Your task to perform on an android device: change alarm snooze length Image 0: 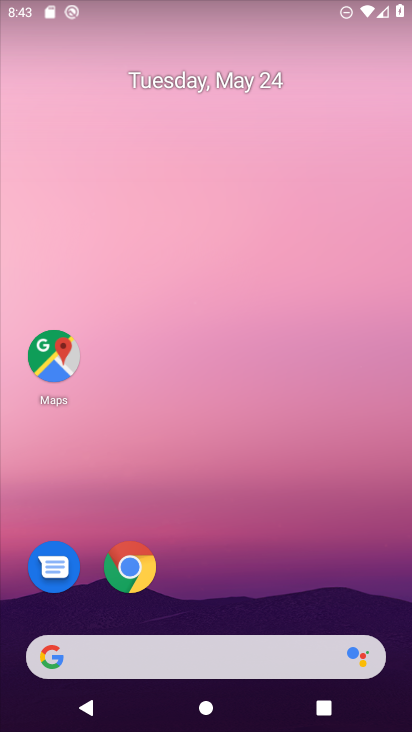
Step 0: drag from (153, 672) to (321, 154)
Your task to perform on an android device: change alarm snooze length Image 1: 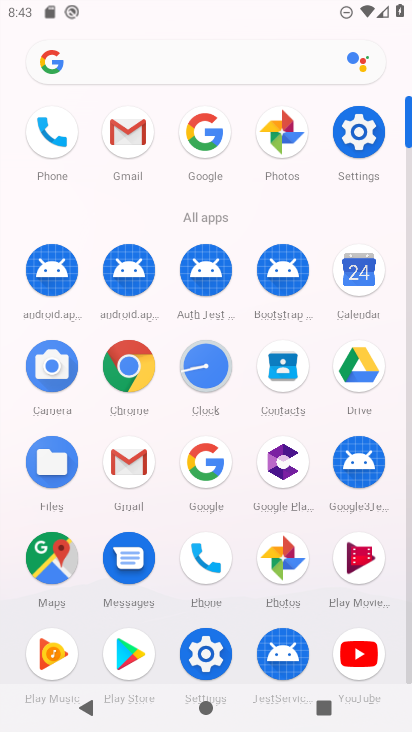
Step 1: click (213, 374)
Your task to perform on an android device: change alarm snooze length Image 2: 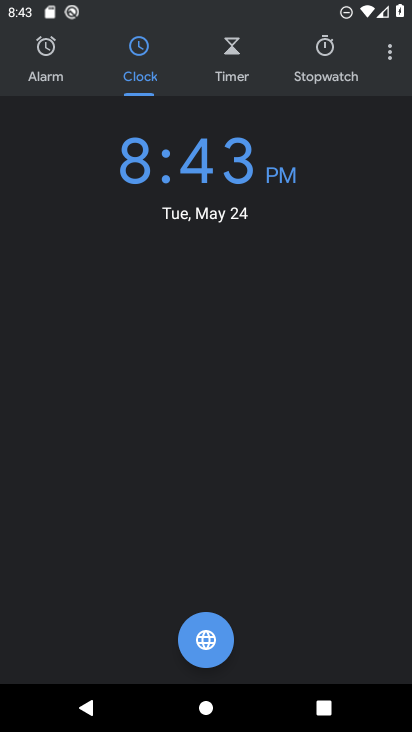
Step 2: click (388, 58)
Your task to perform on an android device: change alarm snooze length Image 3: 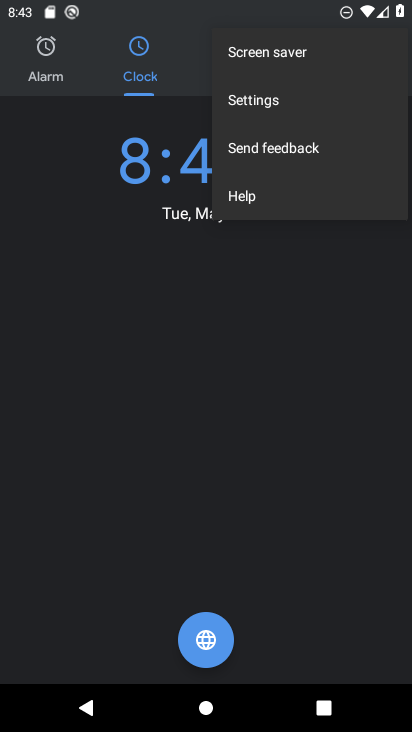
Step 3: click (255, 102)
Your task to perform on an android device: change alarm snooze length Image 4: 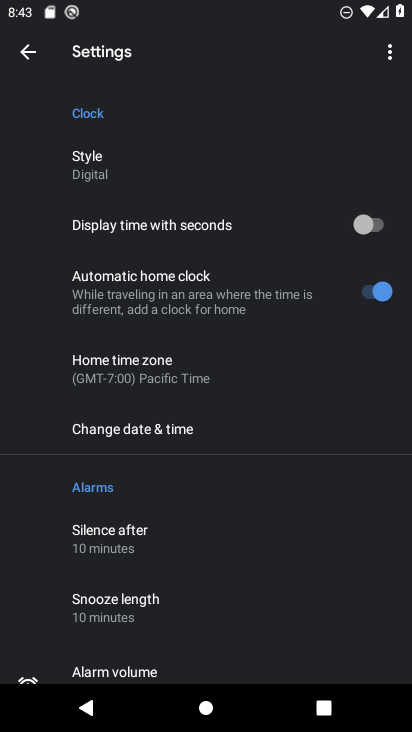
Step 4: click (126, 607)
Your task to perform on an android device: change alarm snooze length Image 5: 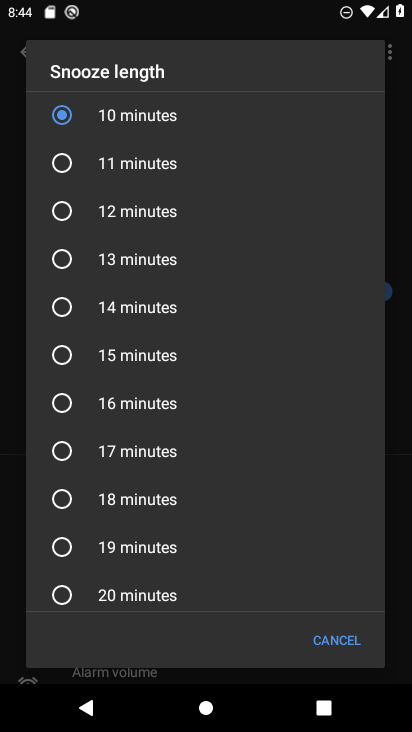
Step 5: click (65, 350)
Your task to perform on an android device: change alarm snooze length Image 6: 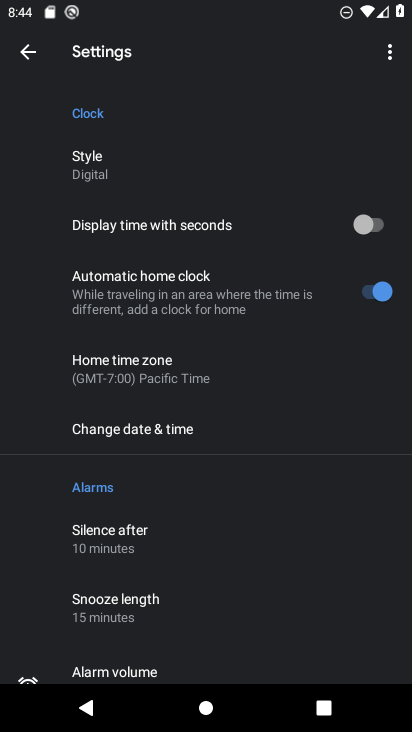
Step 6: task complete